Your task to perform on an android device: open app "Walmart Shopping & Grocery" (install if not already installed) Image 0: 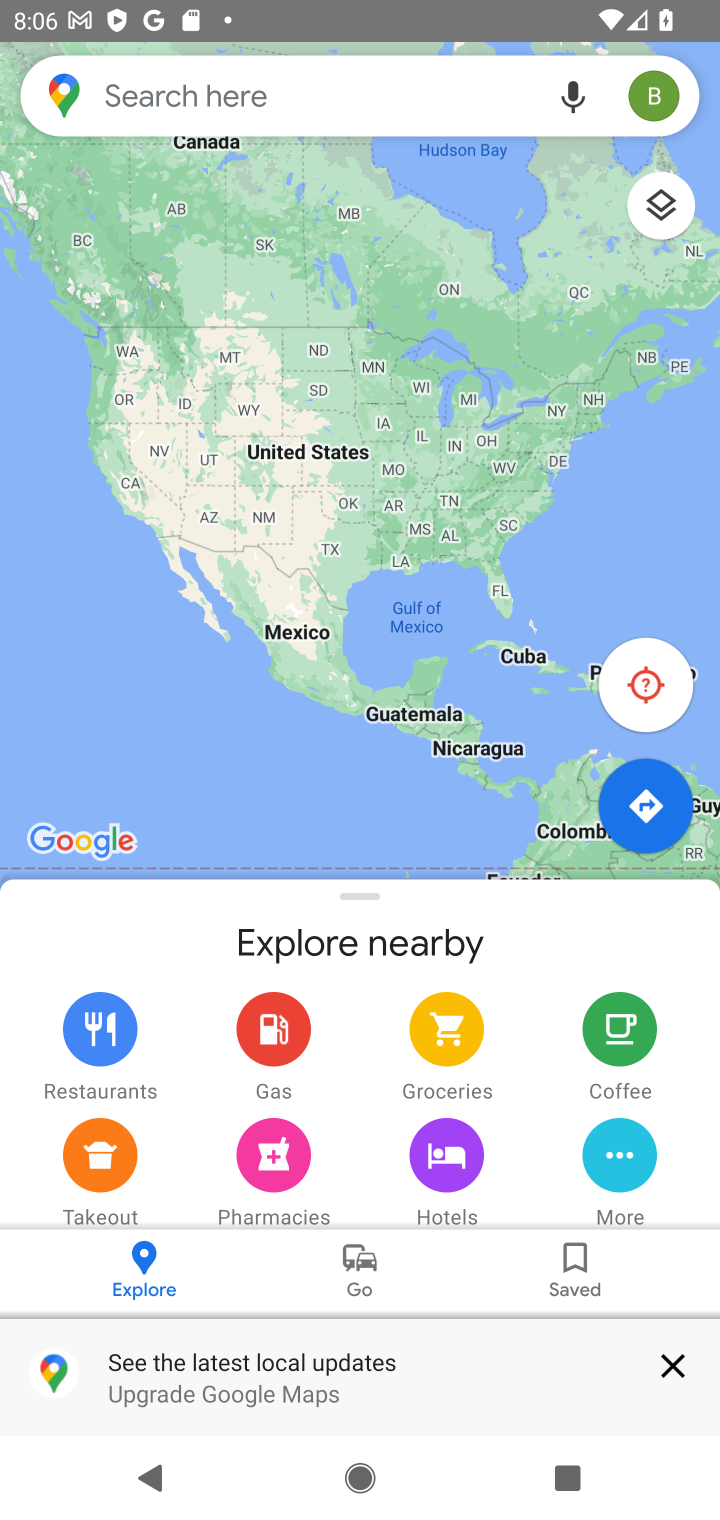
Step 0: press home button
Your task to perform on an android device: open app "Walmart Shopping & Grocery" (install if not already installed) Image 1: 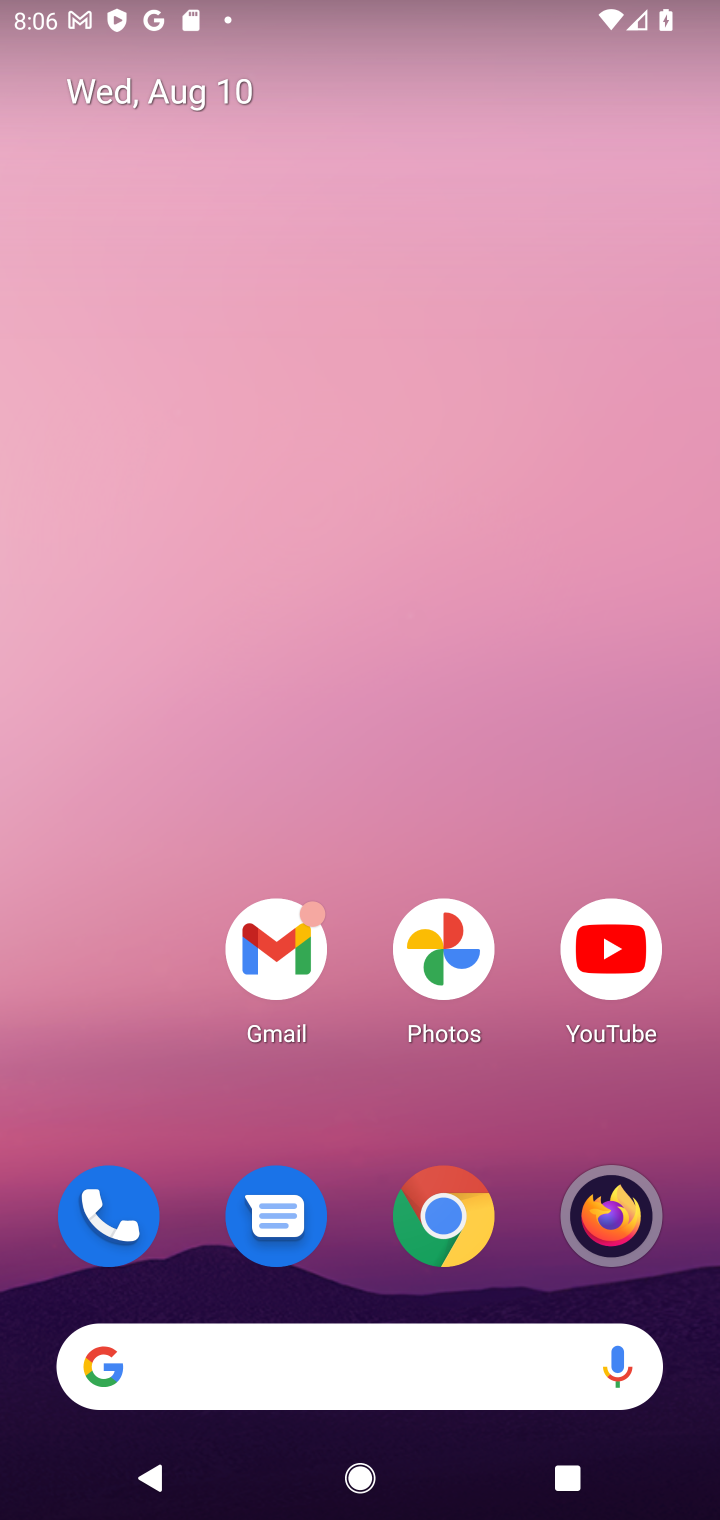
Step 1: drag from (198, 1192) to (459, 62)
Your task to perform on an android device: open app "Walmart Shopping & Grocery" (install if not already installed) Image 2: 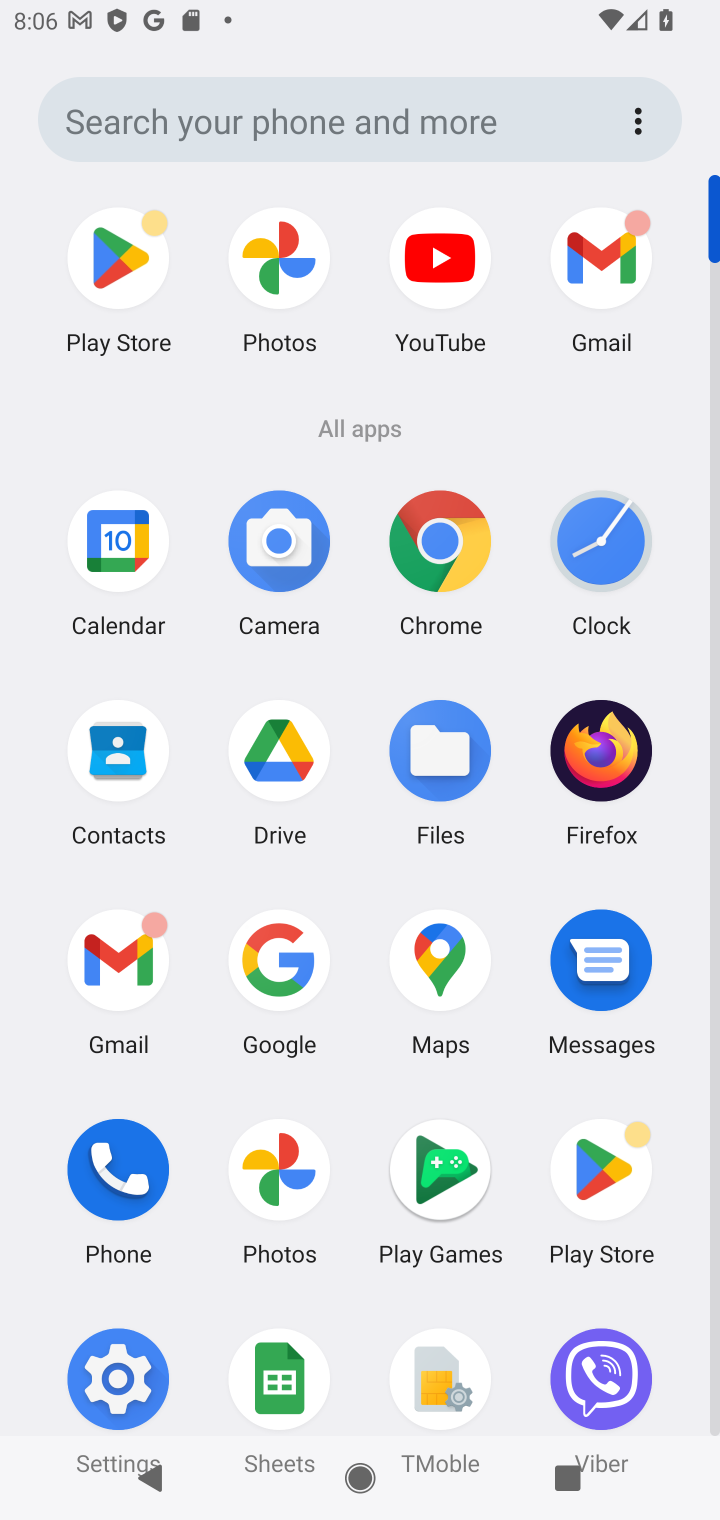
Step 2: click (123, 246)
Your task to perform on an android device: open app "Walmart Shopping & Grocery" (install if not already installed) Image 3: 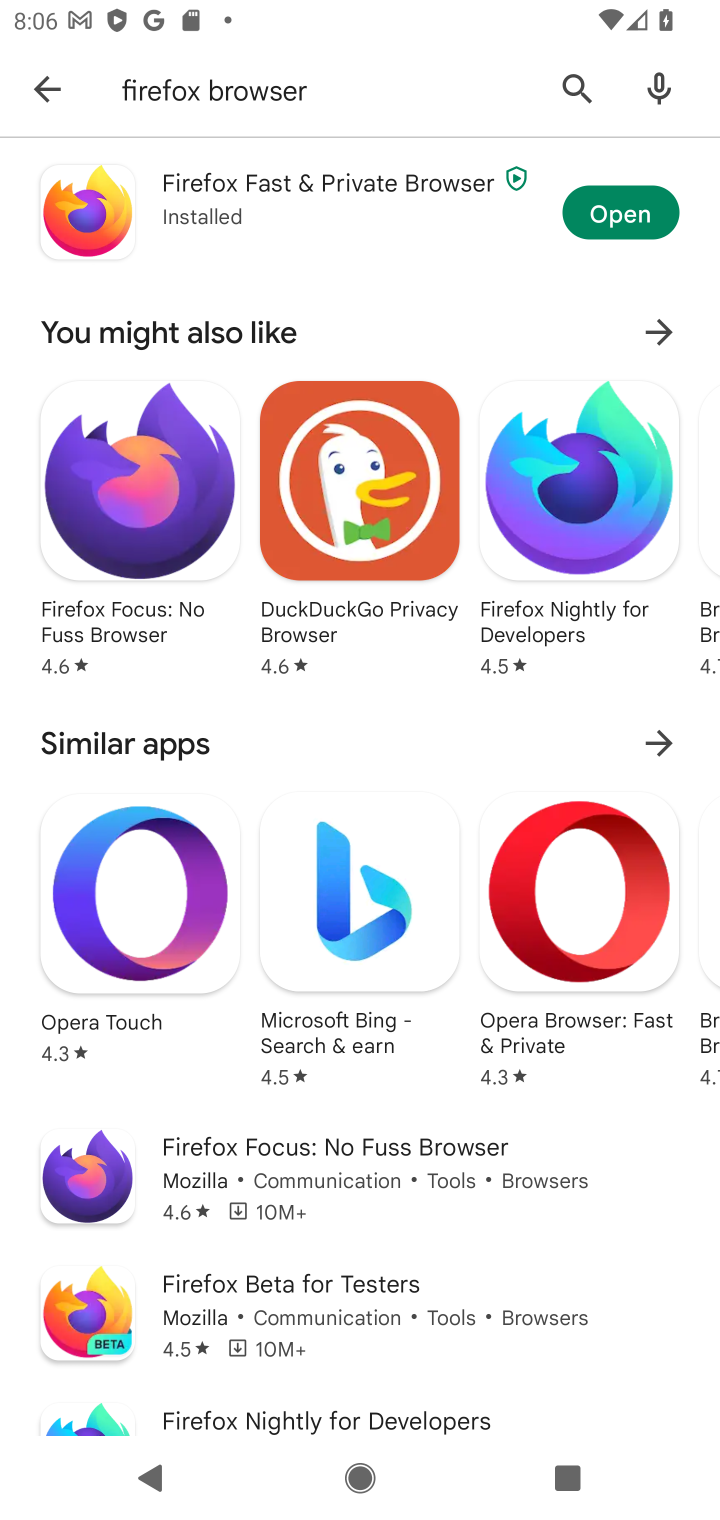
Step 3: click (572, 97)
Your task to perform on an android device: open app "Walmart Shopping & Grocery" (install if not already installed) Image 4: 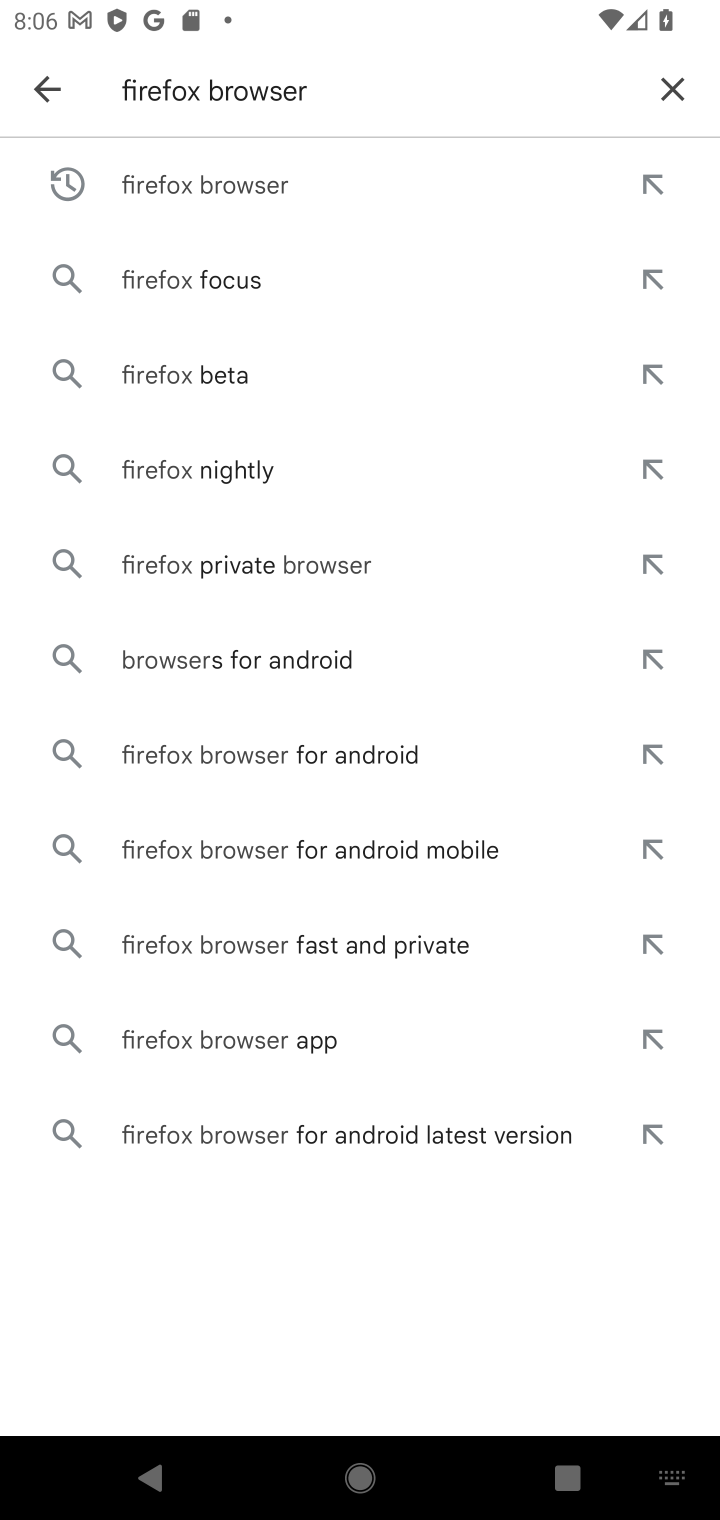
Step 4: click (679, 79)
Your task to perform on an android device: open app "Walmart Shopping & Grocery" (install if not already installed) Image 5: 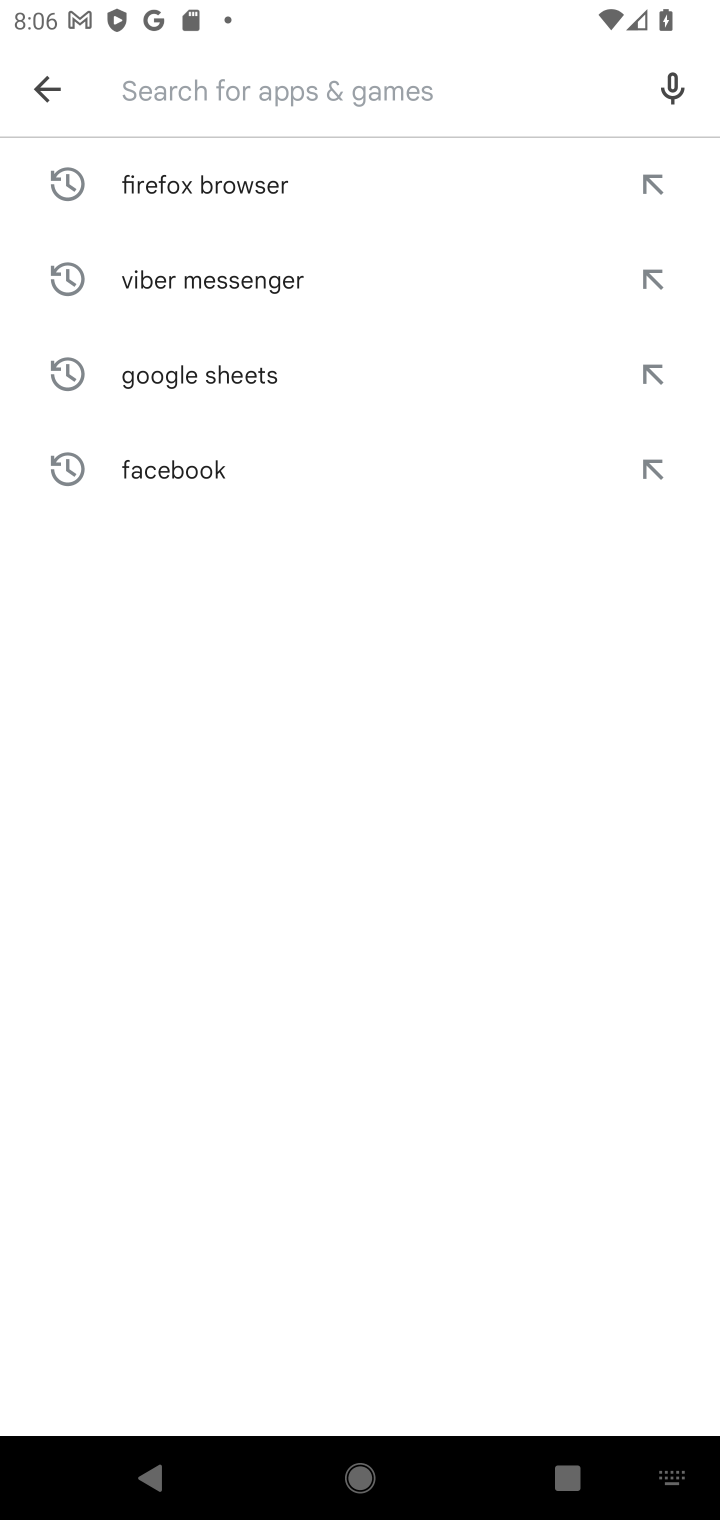
Step 5: click (234, 83)
Your task to perform on an android device: open app "Walmart Shopping & Grocery" (install if not already installed) Image 6: 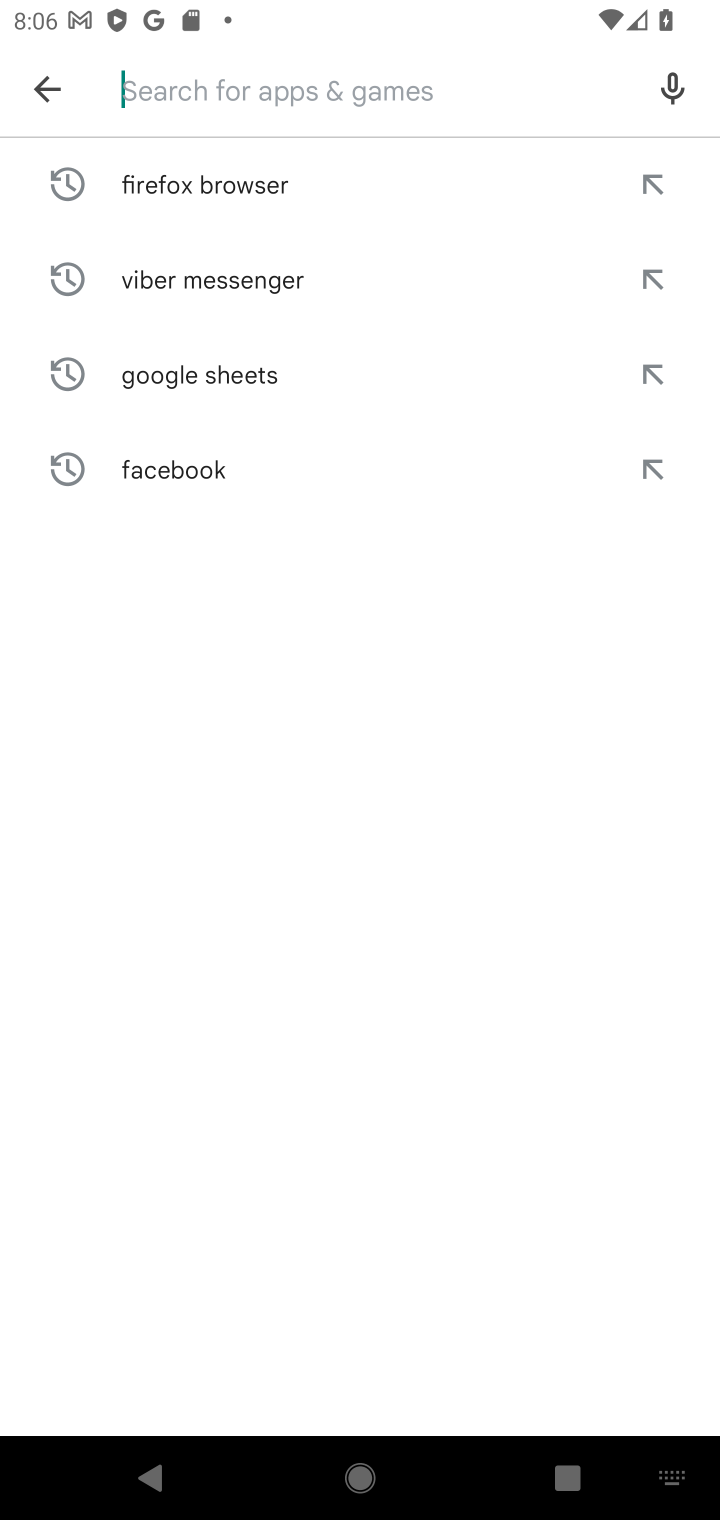
Step 6: type "Walmart Shopping & Grocery"
Your task to perform on an android device: open app "Walmart Shopping & Grocery" (install if not already installed) Image 7: 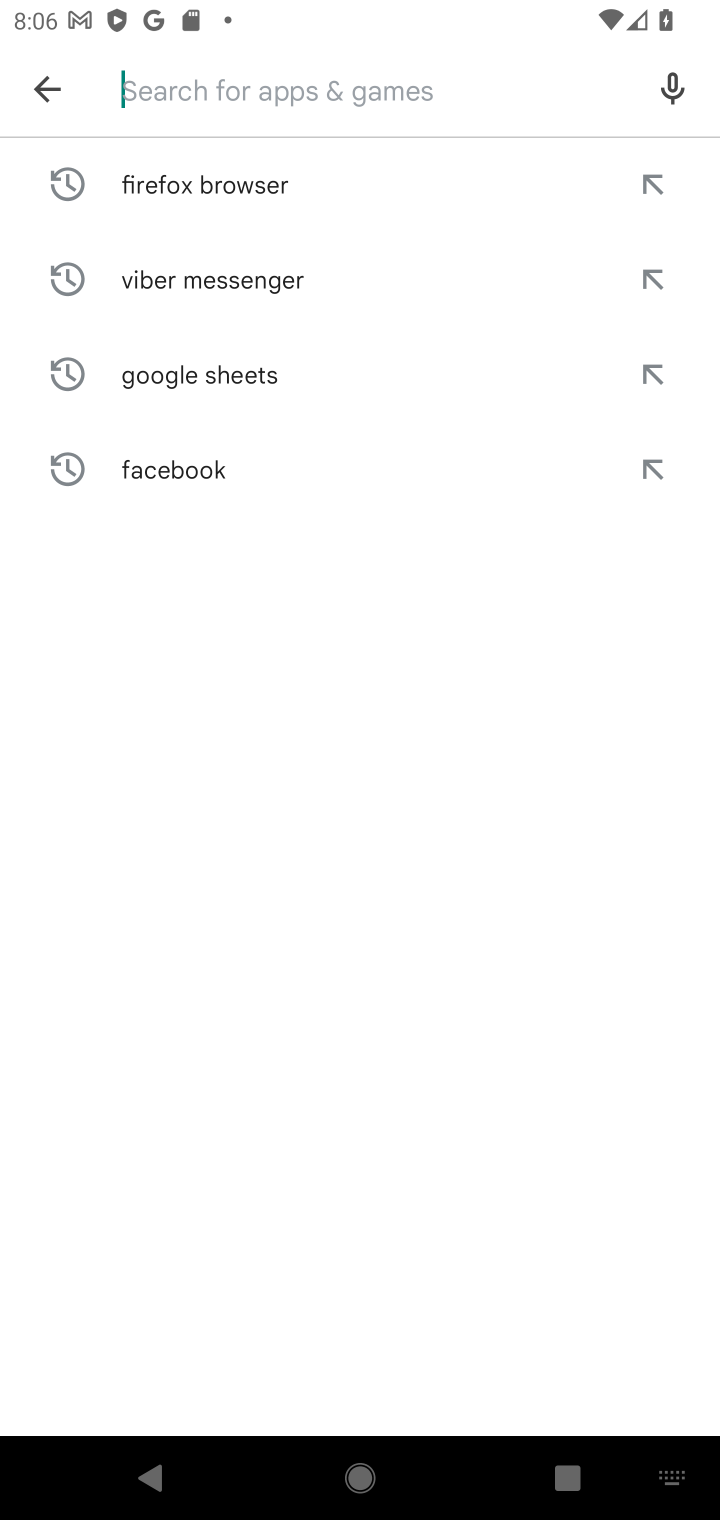
Step 7: click (331, 801)
Your task to perform on an android device: open app "Walmart Shopping & Grocery" (install if not already installed) Image 8: 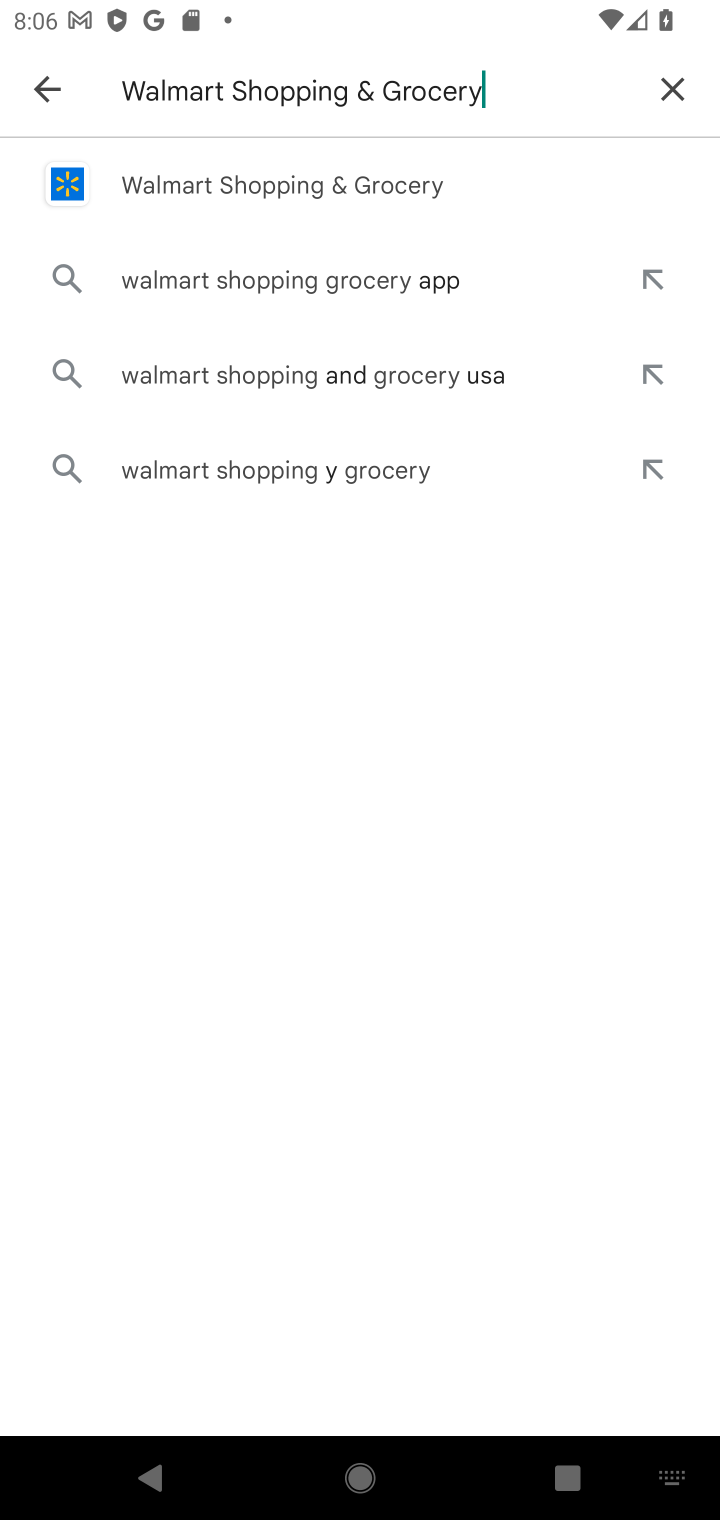
Step 8: click (341, 173)
Your task to perform on an android device: open app "Walmart Shopping & Grocery" (install if not already installed) Image 9: 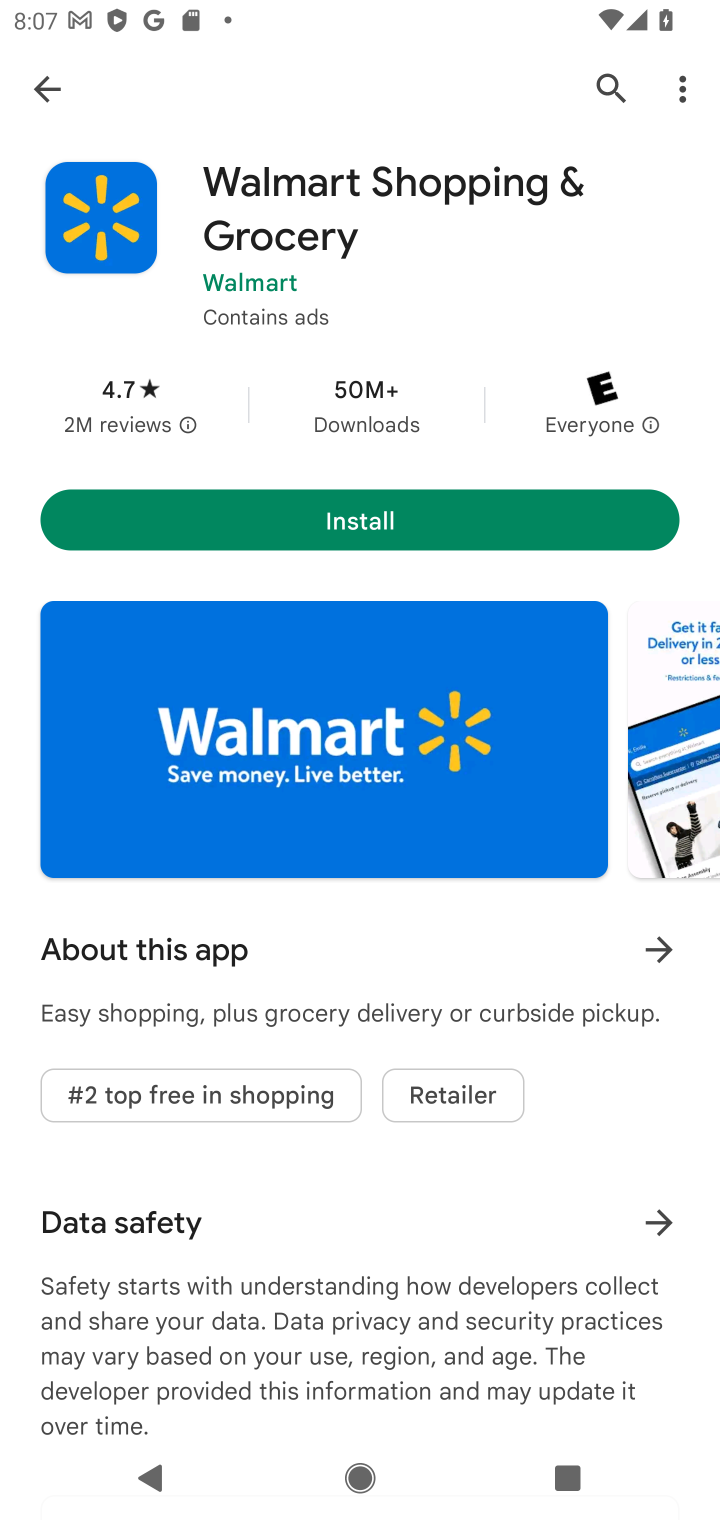
Step 9: click (354, 500)
Your task to perform on an android device: open app "Walmart Shopping & Grocery" (install if not already installed) Image 10: 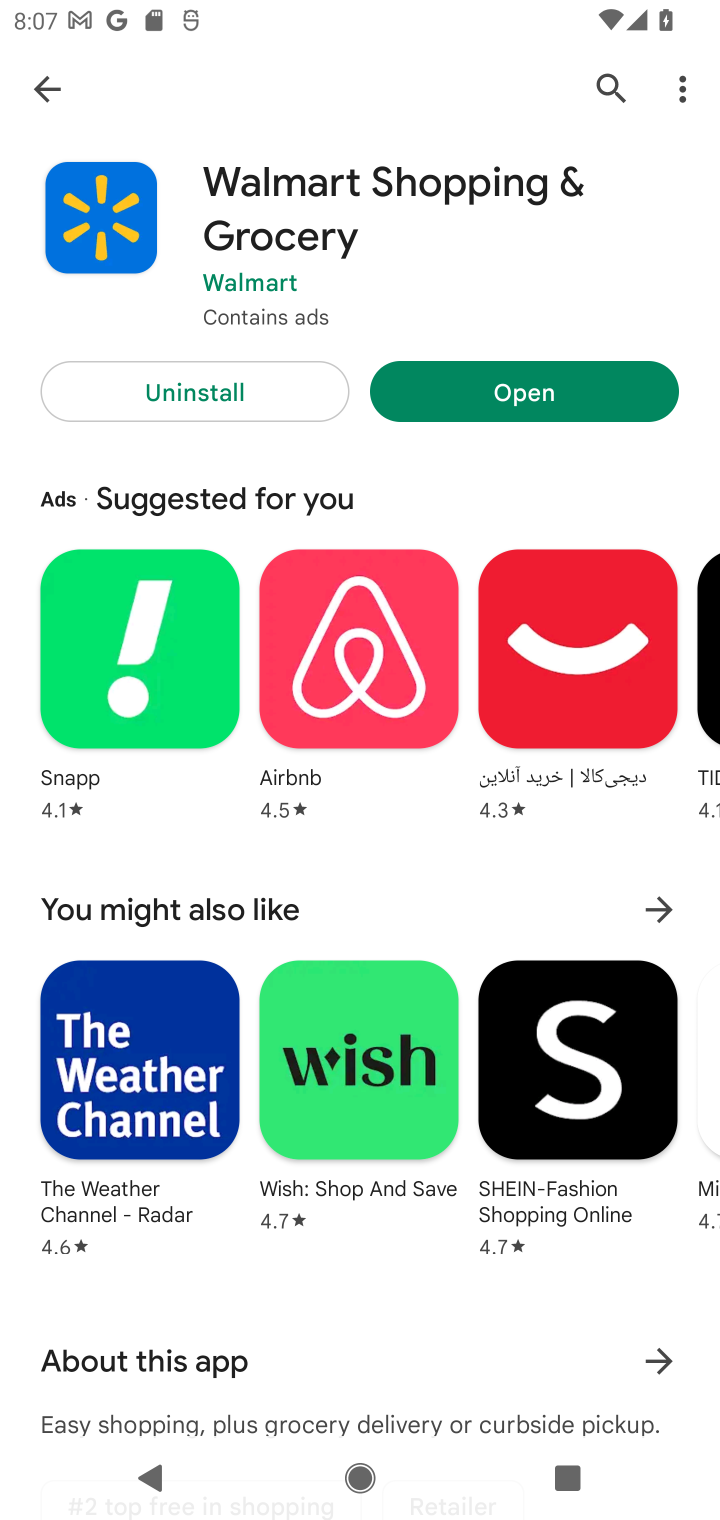
Step 10: click (534, 391)
Your task to perform on an android device: open app "Walmart Shopping & Grocery" (install if not already installed) Image 11: 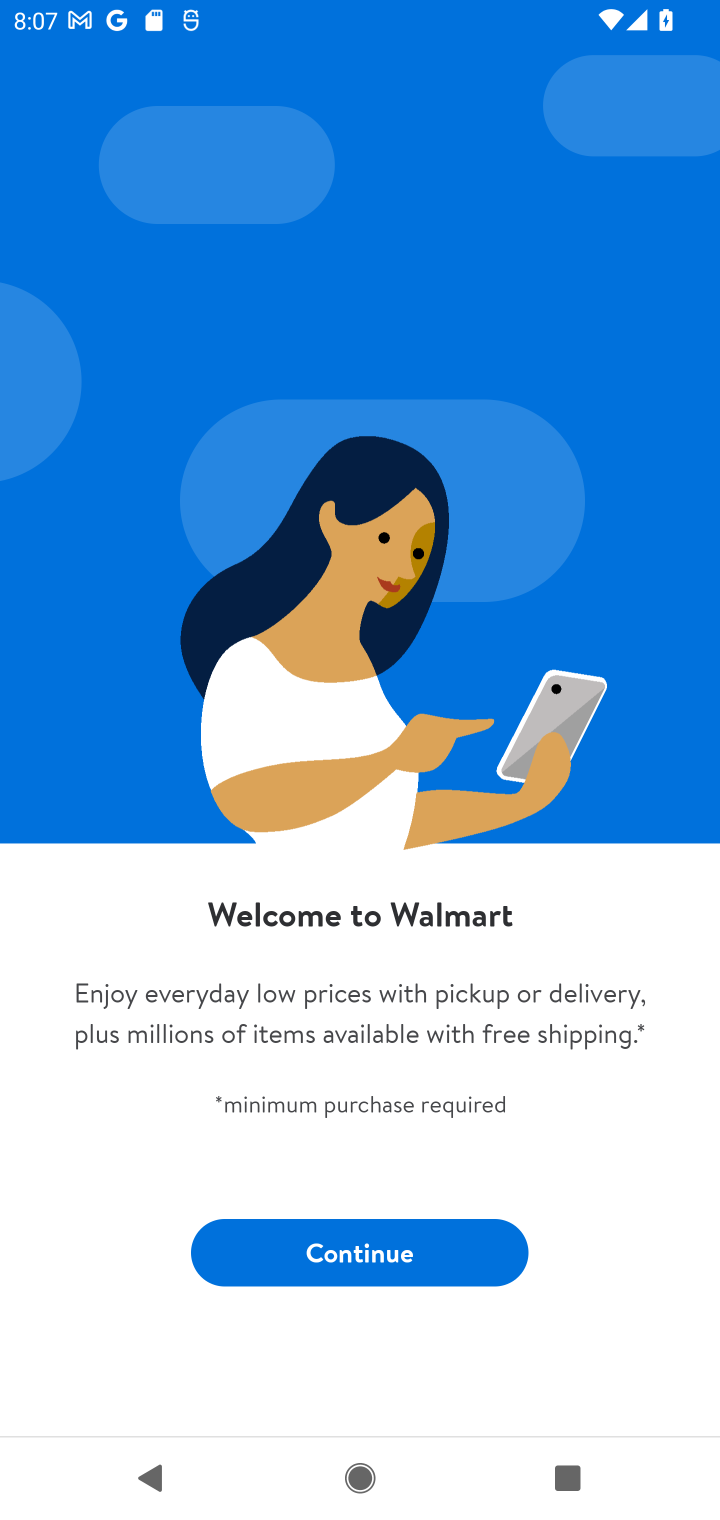
Step 11: task complete